Your task to perform on an android device: Search for Mexican restaurants on Maps Image 0: 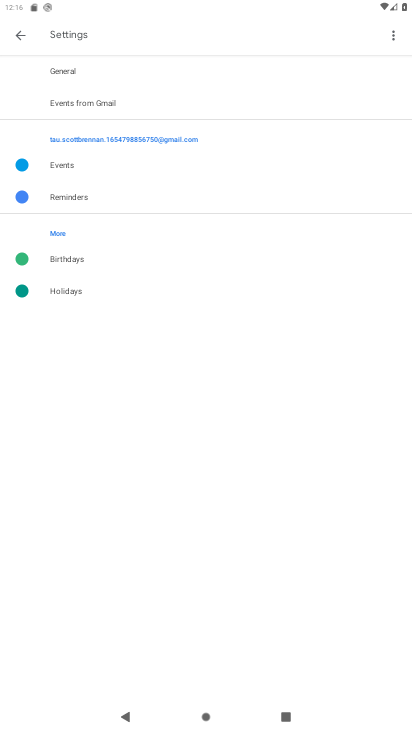
Step 0: press home button
Your task to perform on an android device: Search for Mexican restaurants on Maps Image 1: 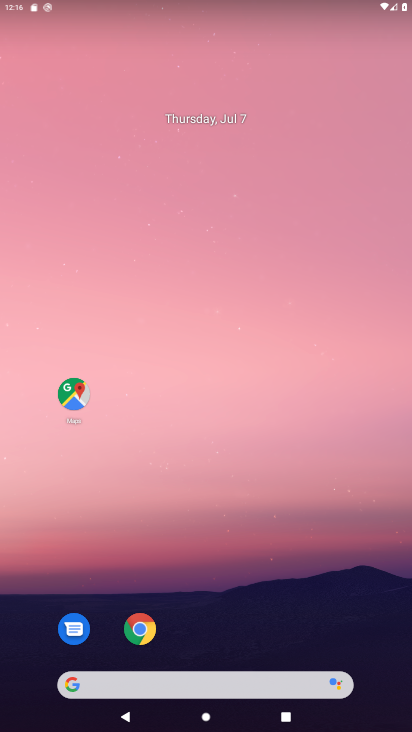
Step 1: drag from (246, 562) to (227, 189)
Your task to perform on an android device: Search for Mexican restaurants on Maps Image 2: 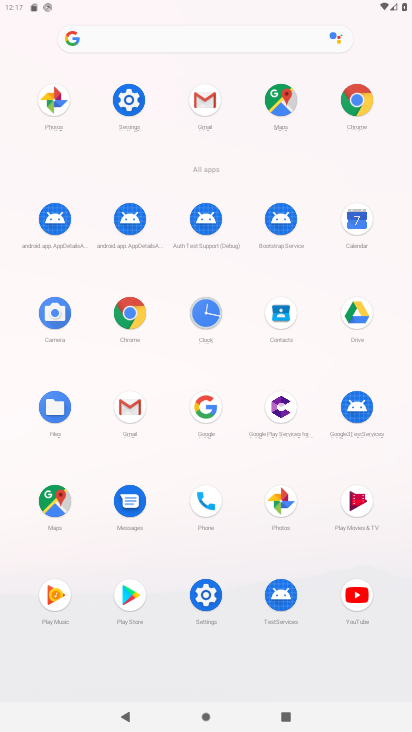
Step 2: click (276, 109)
Your task to perform on an android device: Search for Mexican restaurants on Maps Image 3: 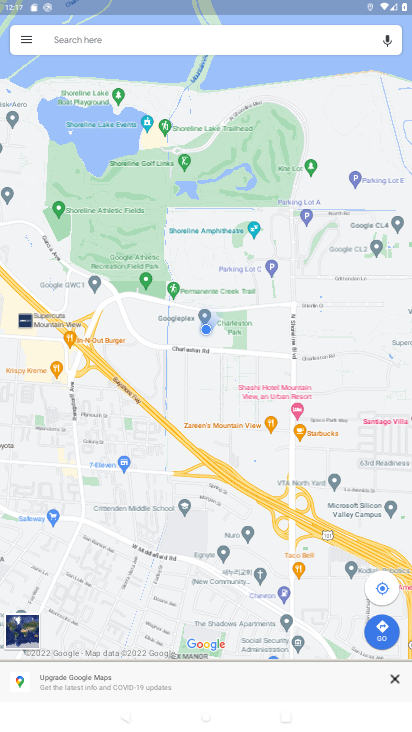
Step 3: click (113, 40)
Your task to perform on an android device: Search for Mexican restaurants on Maps Image 4: 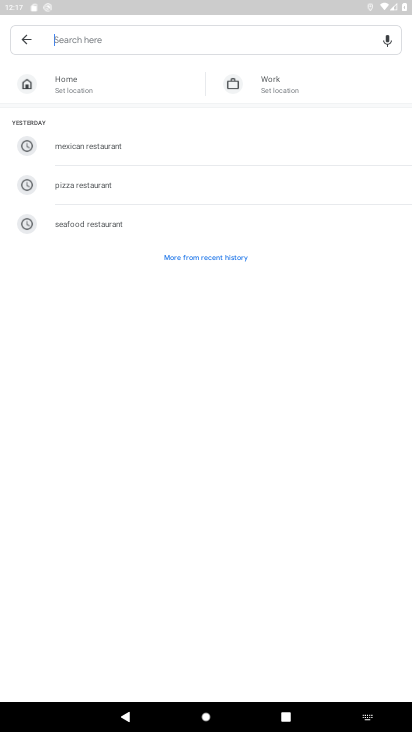
Step 4: type "Mexican restaurants"
Your task to perform on an android device: Search for Mexican restaurants on Maps Image 5: 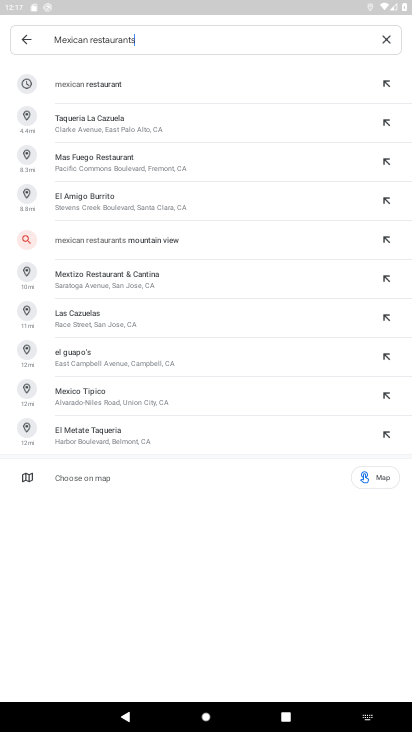
Step 5: click (198, 90)
Your task to perform on an android device: Search for Mexican restaurants on Maps Image 6: 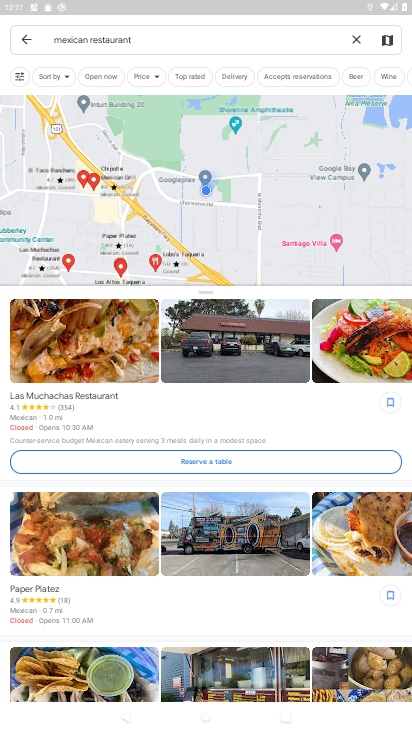
Step 6: task complete